Your task to perform on an android device: open wifi settings Image 0: 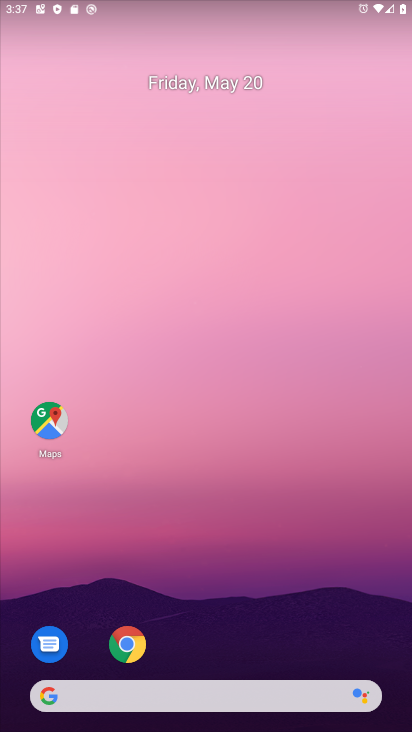
Step 0: drag from (302, 640) to (187, 98)
Your task to perform on an android device: open wifi settings Image 1: 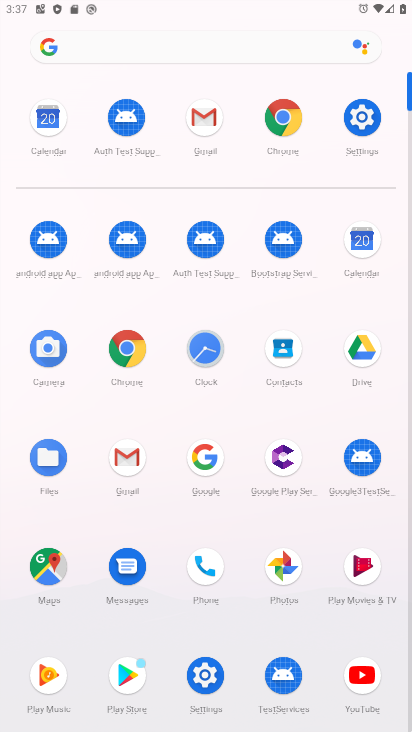
Step 1: click (343, 138)
Your task to perform on an android device: open wifi settings Image 2: 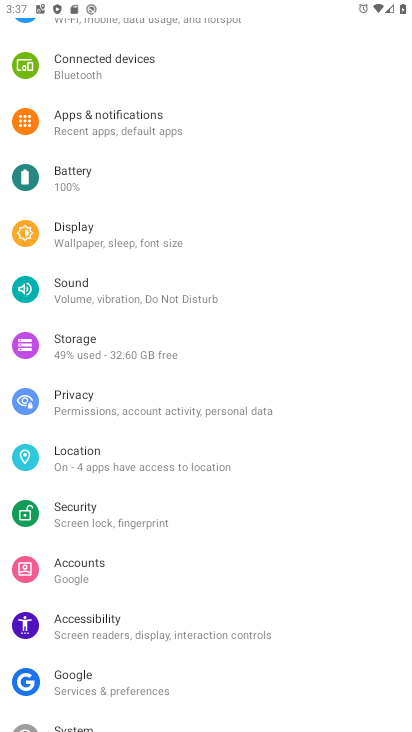
Step 2: drag from (174, 188) to (160, 506)
Your task to perform on an android device: open wifi settings Image 3: 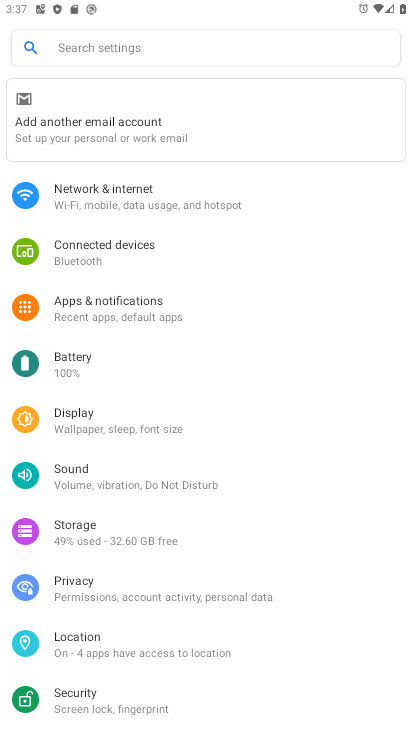
Step 3: click (160, 195)
Your task to perform on an android device: open wifi settings Image 4: 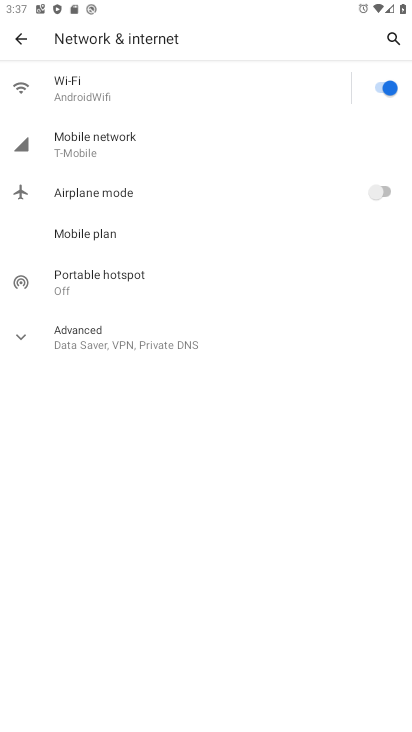
Step 4: click (146, 104)
Your task to perform on an android device: open wifi settings Image 5: 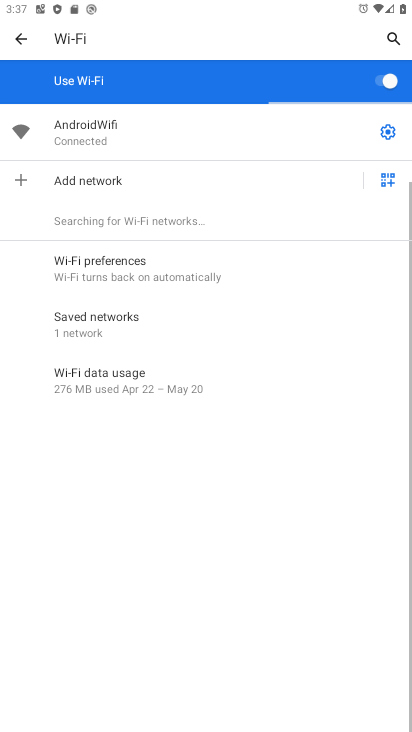
Step 5: task complete